Your task to perform on an android device: find which apps use the phone's location Image 0: 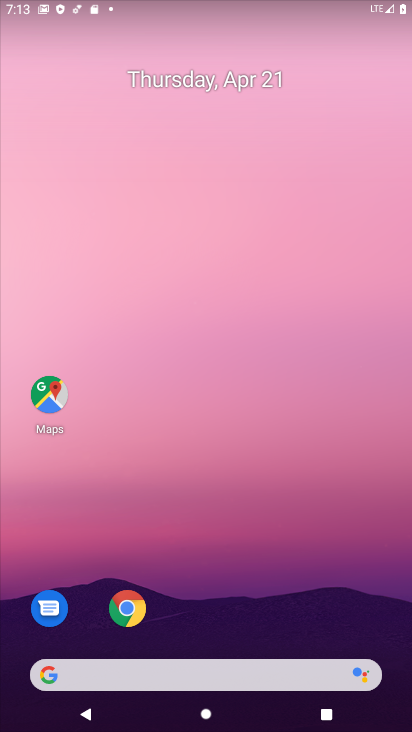
Step 0: drag from (236, 419) to (231, 75)
Your task to perform on an android device: find which apps use the phone's location Image 1: 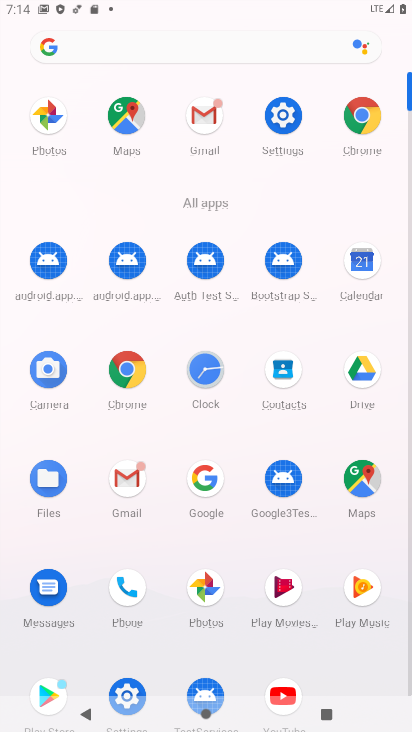
Step 1: click (128, 689)
Your task to perform on an android device: find which apps use the phone's location Image 2: 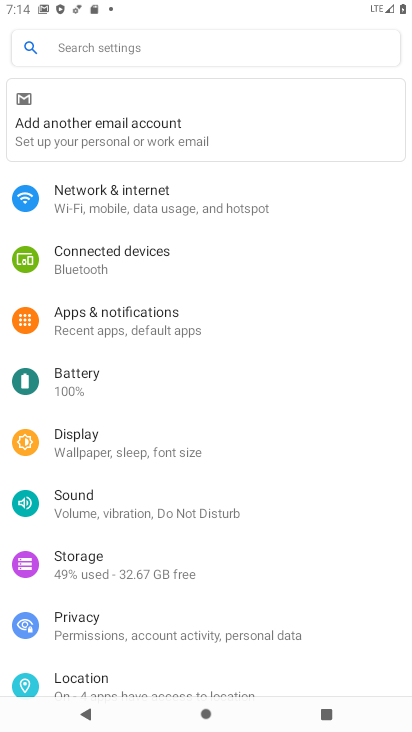
Step 2: click (134, 677)
Your task to perform on an android device: find which apps use the phone's location Image 3: 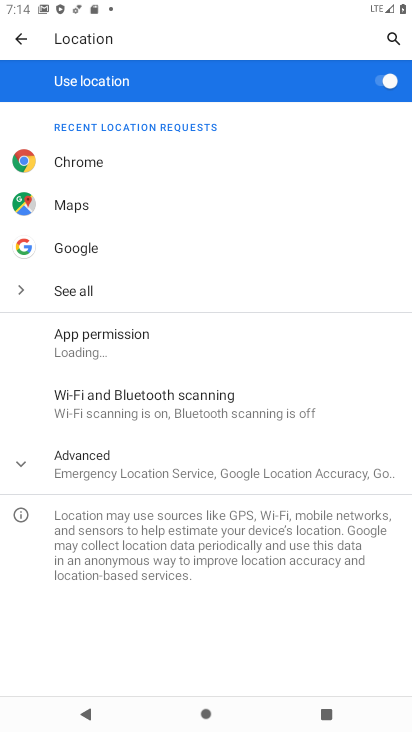
Step 3: click (119, 155)
Your task to perform on an android device: find which apps use the phone's location Image 4: 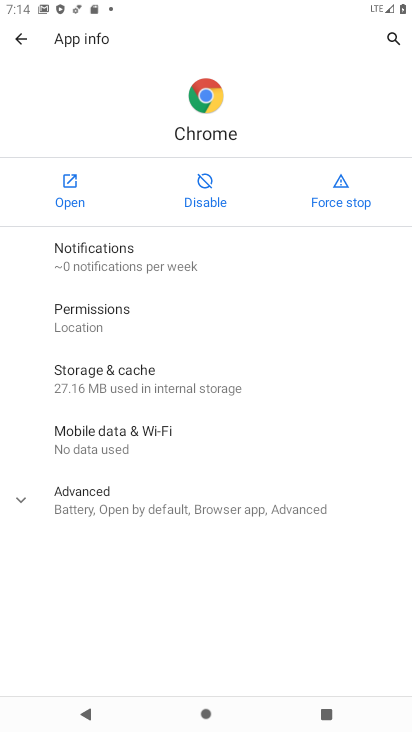
Step 4: click (123, 323)
Your task to perform on an android device: find which apps use the phone's location Image 5: 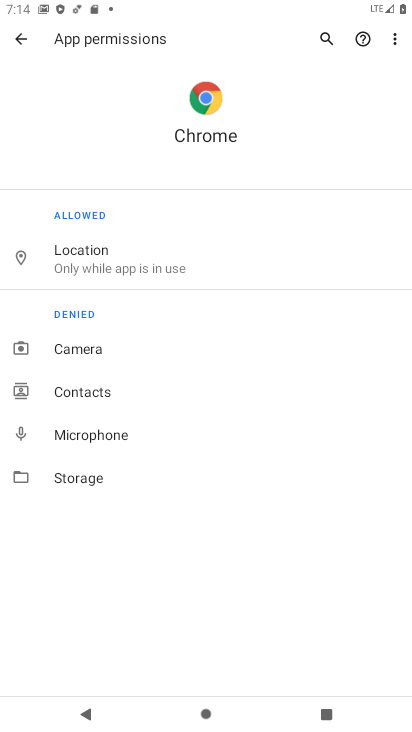
Step 5: task complete